Your task to perform on an android device: toggle location history Image 0: 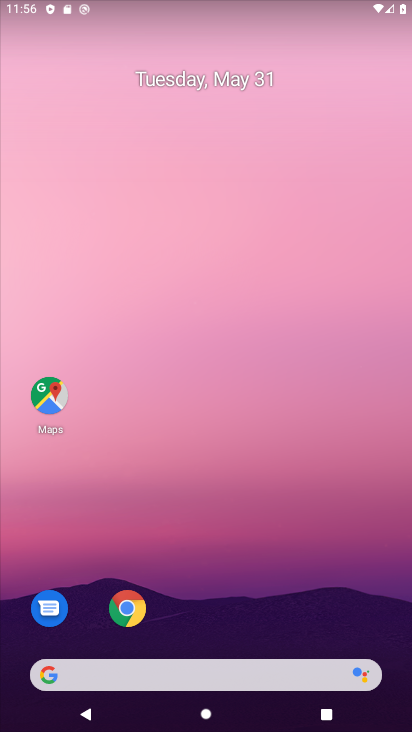
Step 0: drag from (201, 620) to (240, 148)
Your task to perform on an android device: toggle location history Image 1: 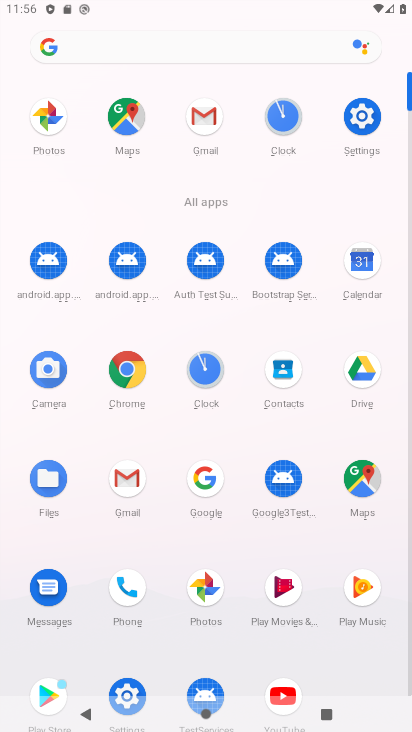
Step 1: click (370, 140)
Your task to perform on an android device: toggle location history Image 2: 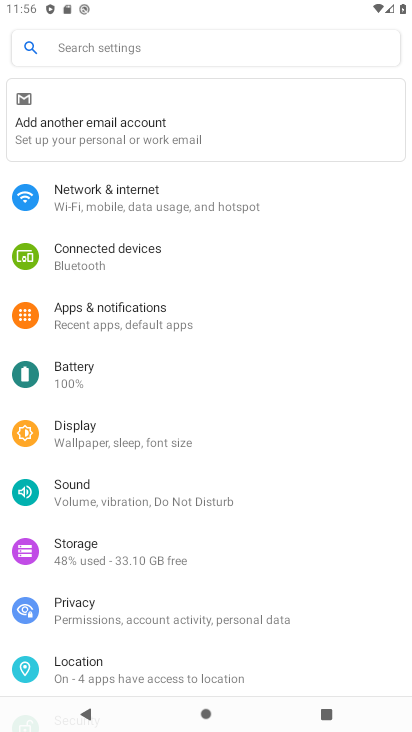
Step 2: click (126, 680)
Your task to perform on an android device: toggle location history Image 3: 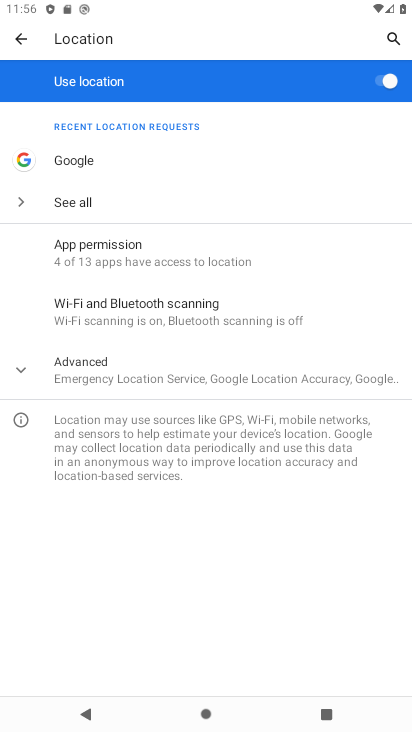
Step 3: click (151, 372)
Your task to perform on an android device: toggle location history Image 4: 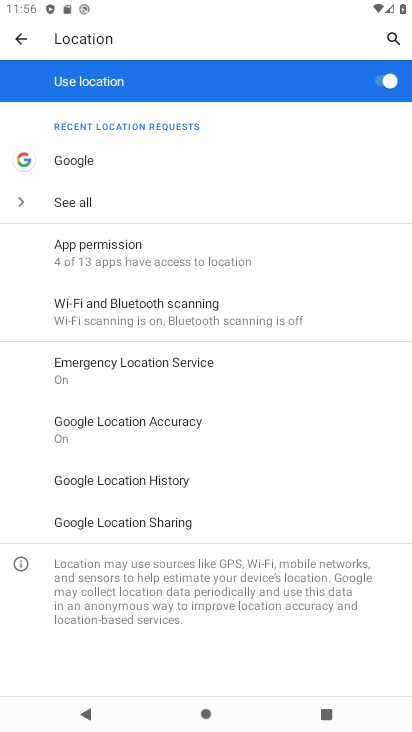
Step 4: click (128, 490)
Your task to perform on an android device: toggle location history Image 5: 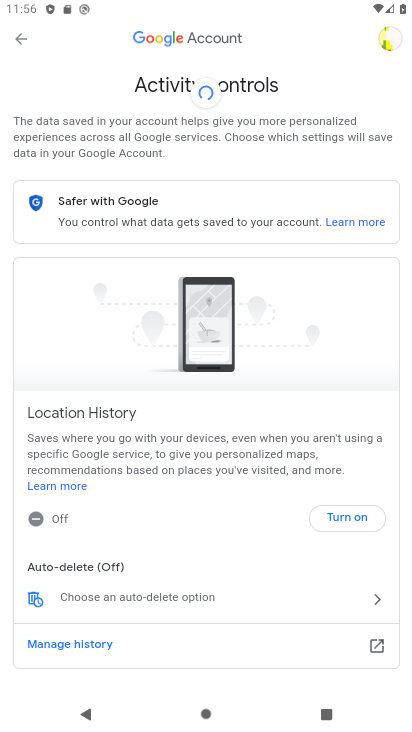
Step 5: click (351, 519)
Your task to perform on an android device: toggle location history Image 6: 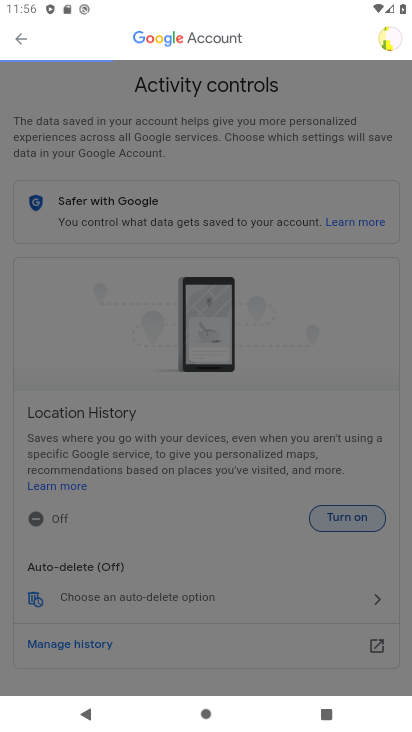
Step 6: click (351, 519)
Your task to perform on an android device: toggle location history Image 7: 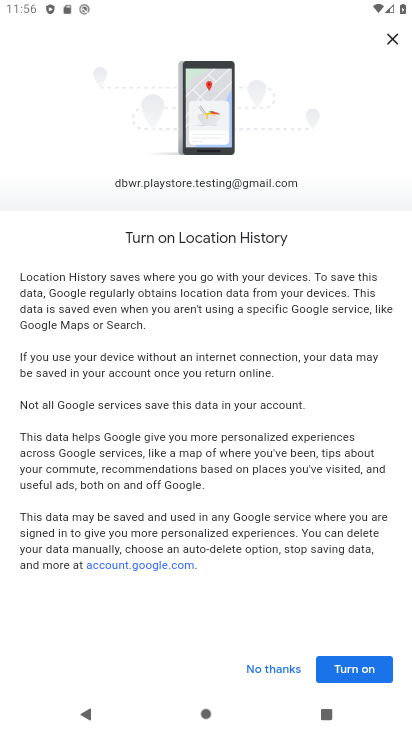
Step 7: click (369, 677)
Your task to perform on an android device: toggle location history Image 8: 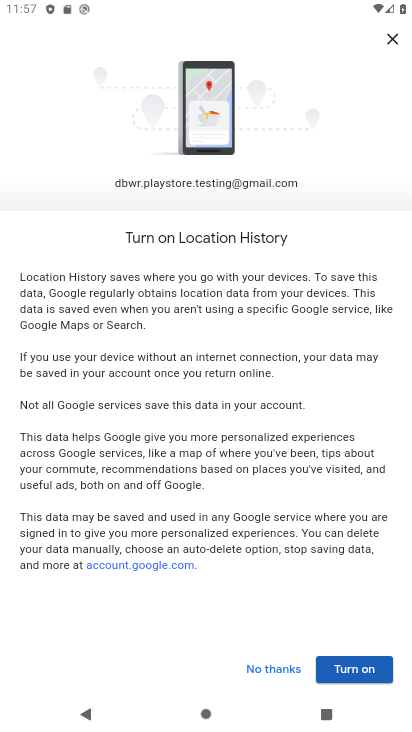
Step 8: click (374, 668)
Your task to perform on an android device: toggle location history Image 9: 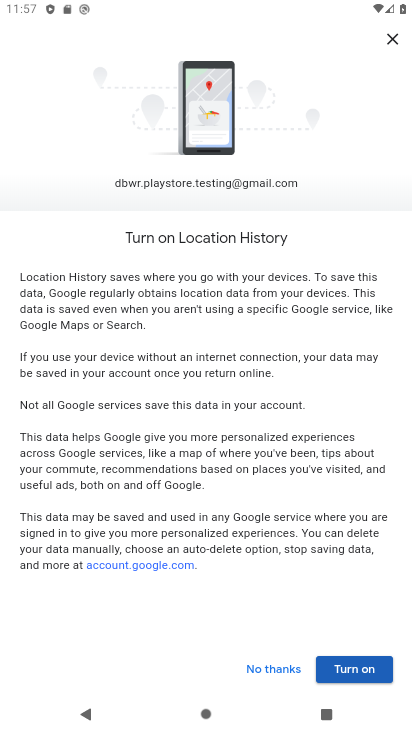
Step 9: click (374, 669)
Your task to perform on an android device: toggle location history Image 10: 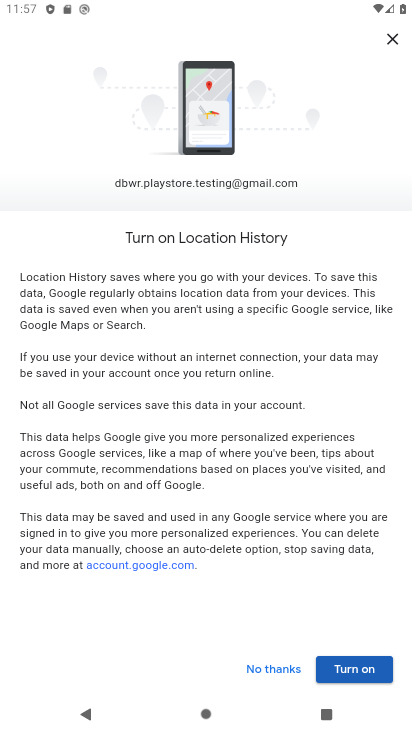
Step 10: click (375, 670)
Your task to perform on an android device: toggle location history Image 11: 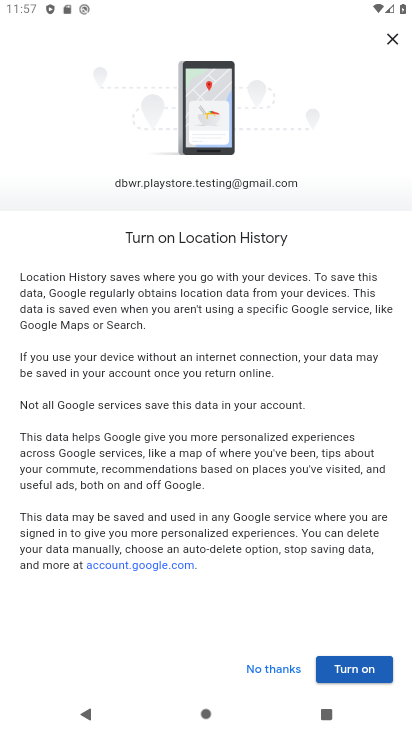
Step 11: click (377, 671)
Your task to perform on an android device: toggle location history Image 12: 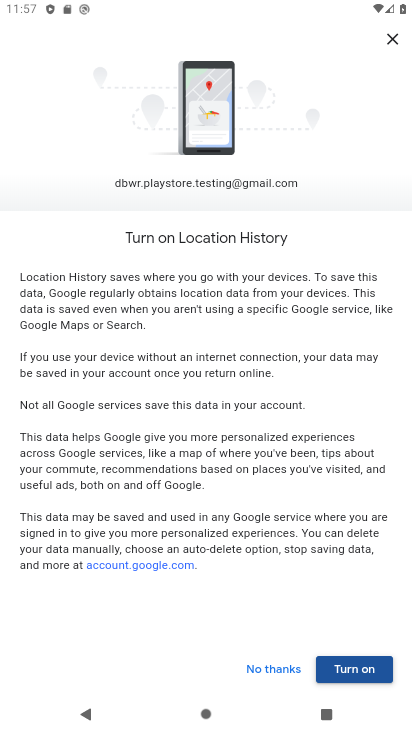
Step 12: click (363, 666)
Your task to perform on an android device: toggle location history Image 13: 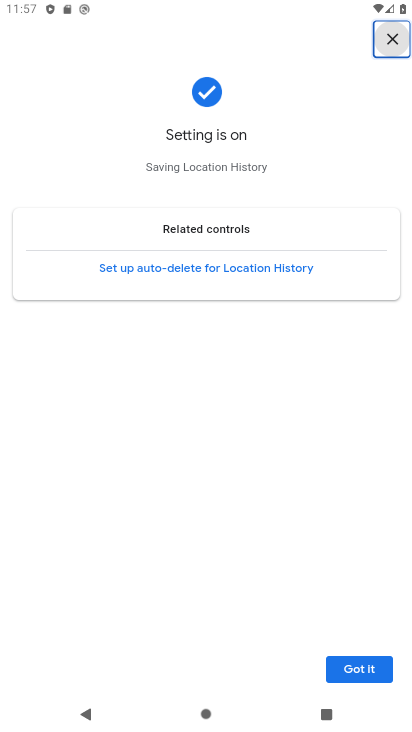
Step 13: click (359, 673)
Your task to perform on an android device: toggle location history Image 14: 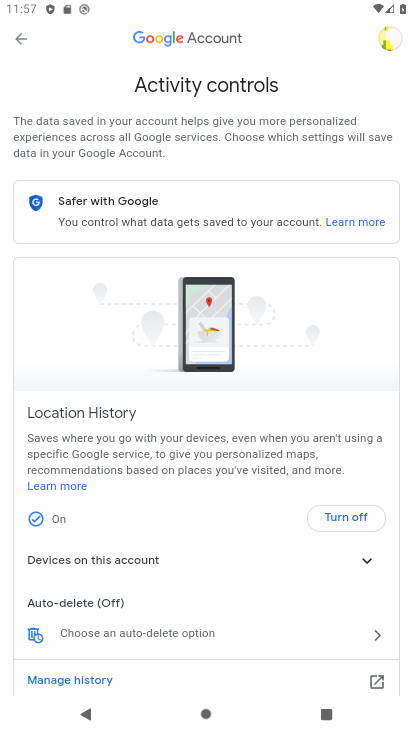
Step 14: task complete